Your task to perform on an android device: open app "Life360: Find Family & Friends" (install if not already installed) Image 0: 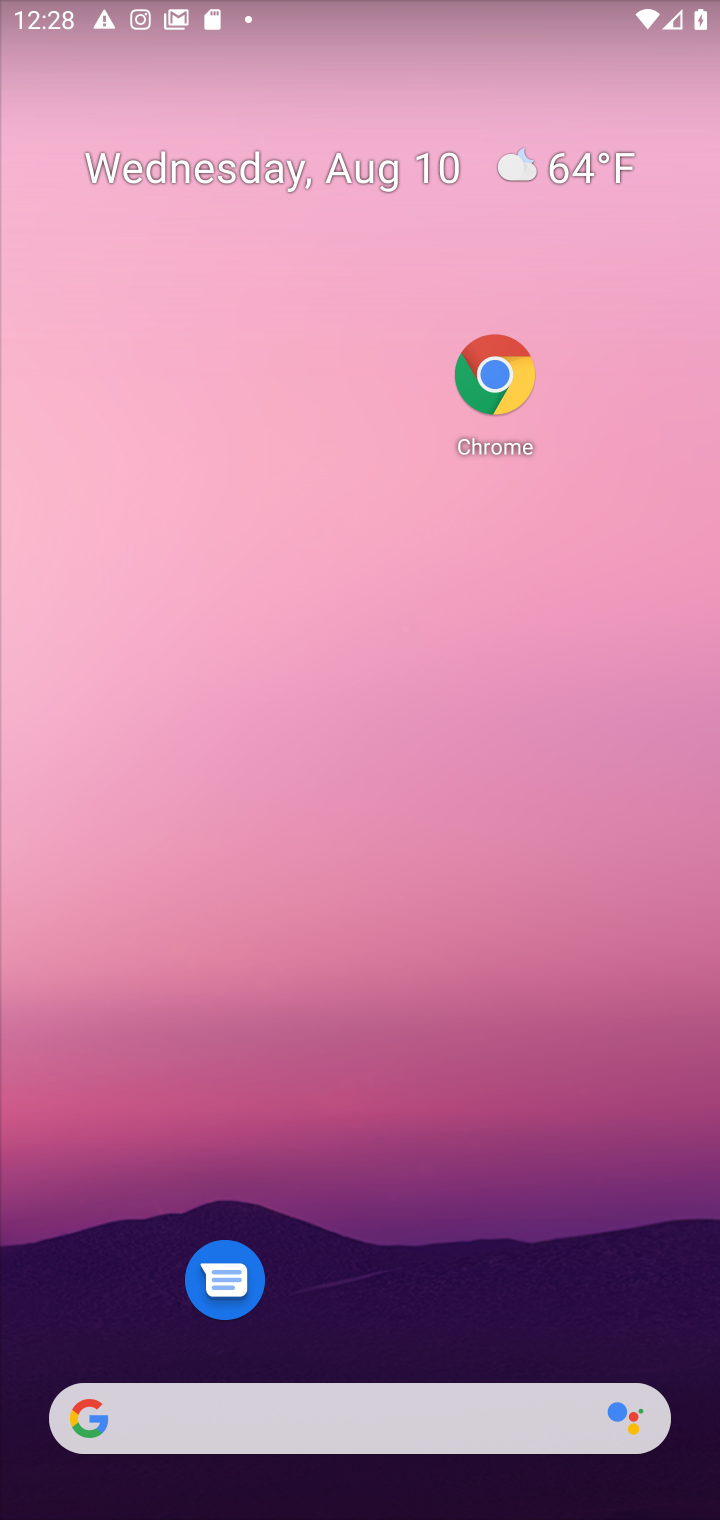
Step 0: drag from (451, 1384) to (354, 88)
Your task to perform on an android device: open app "Life360: Find Family & Friends" (install if not already installed) Image 1: 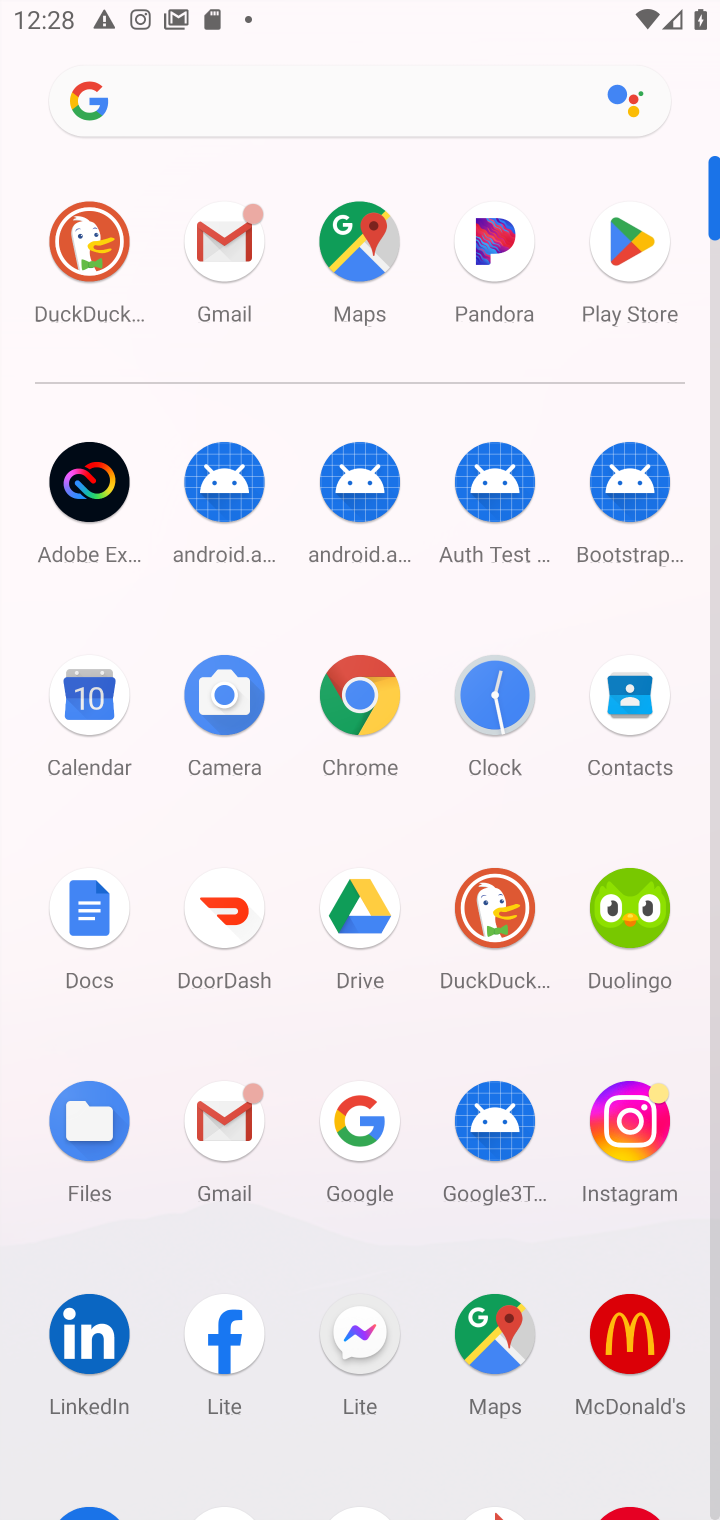
Step 1: click (641, 270)
Your task to perform on an android device: open app "Life360: Find Family & Friends" (install if not already installed) Image 2: 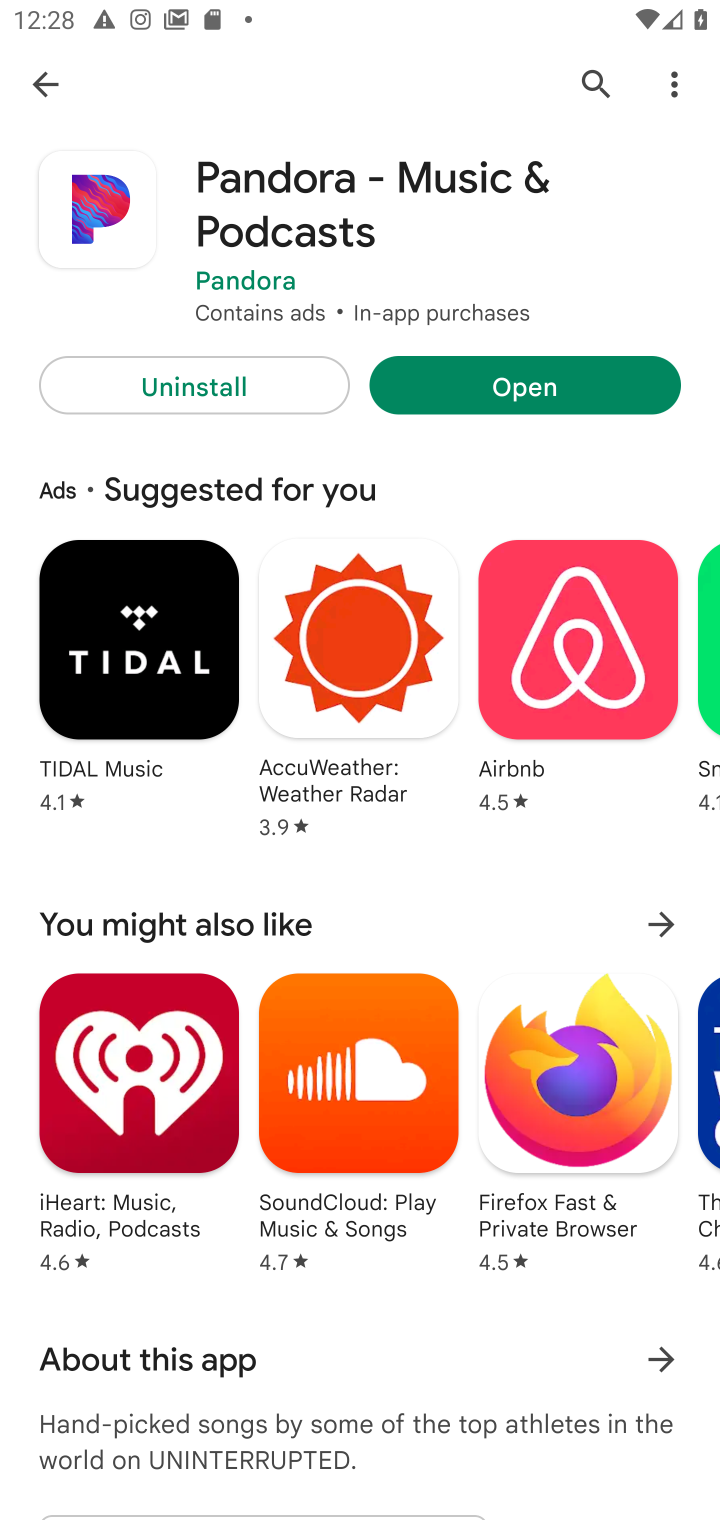
Step 2: click (123, 93)
Your task to perform on an android device: open app "Life360: Find Family & Friends" (install if not already installed) Image 3: 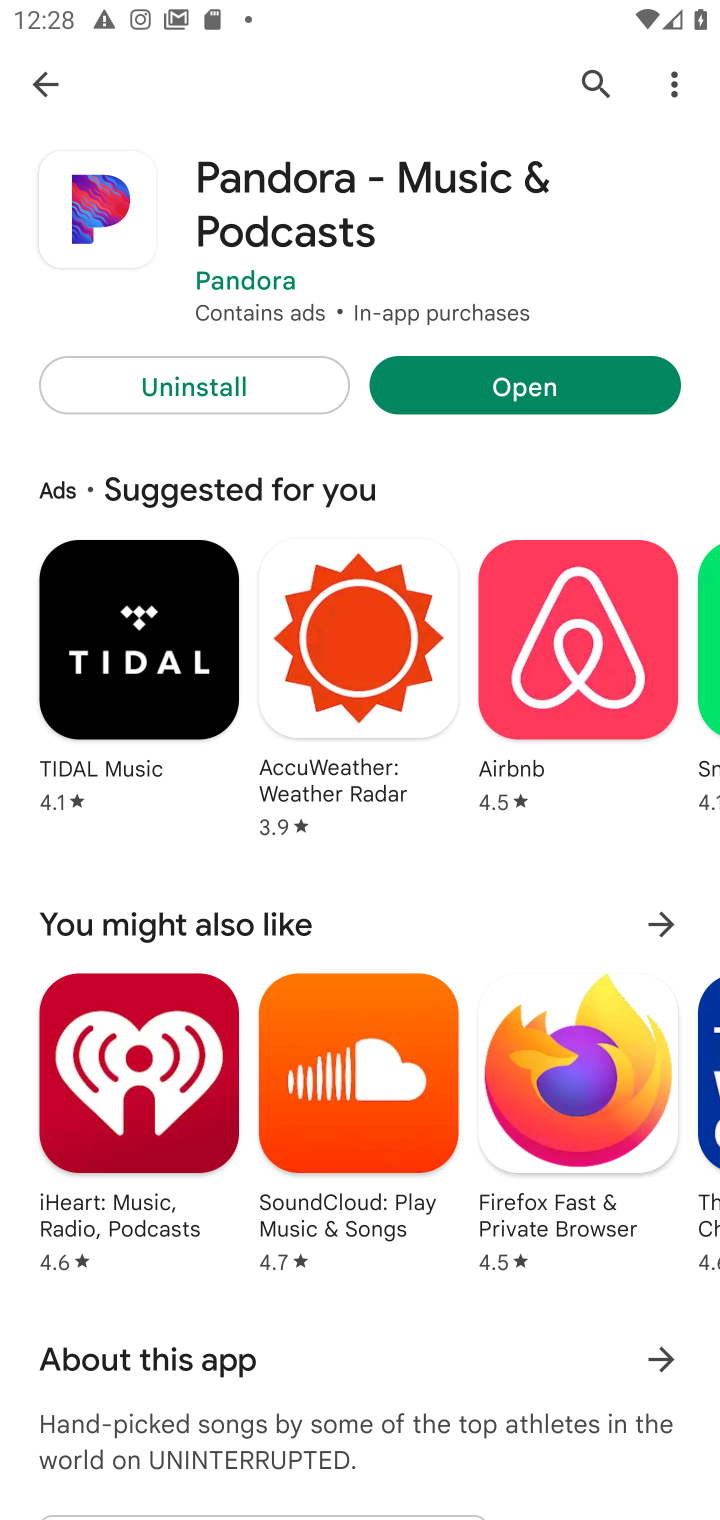
Step 3: click (41, 65)
Your task to perform on an android device: open app "Life360: Find Family & Friends" (install if not already installed) Image 4: 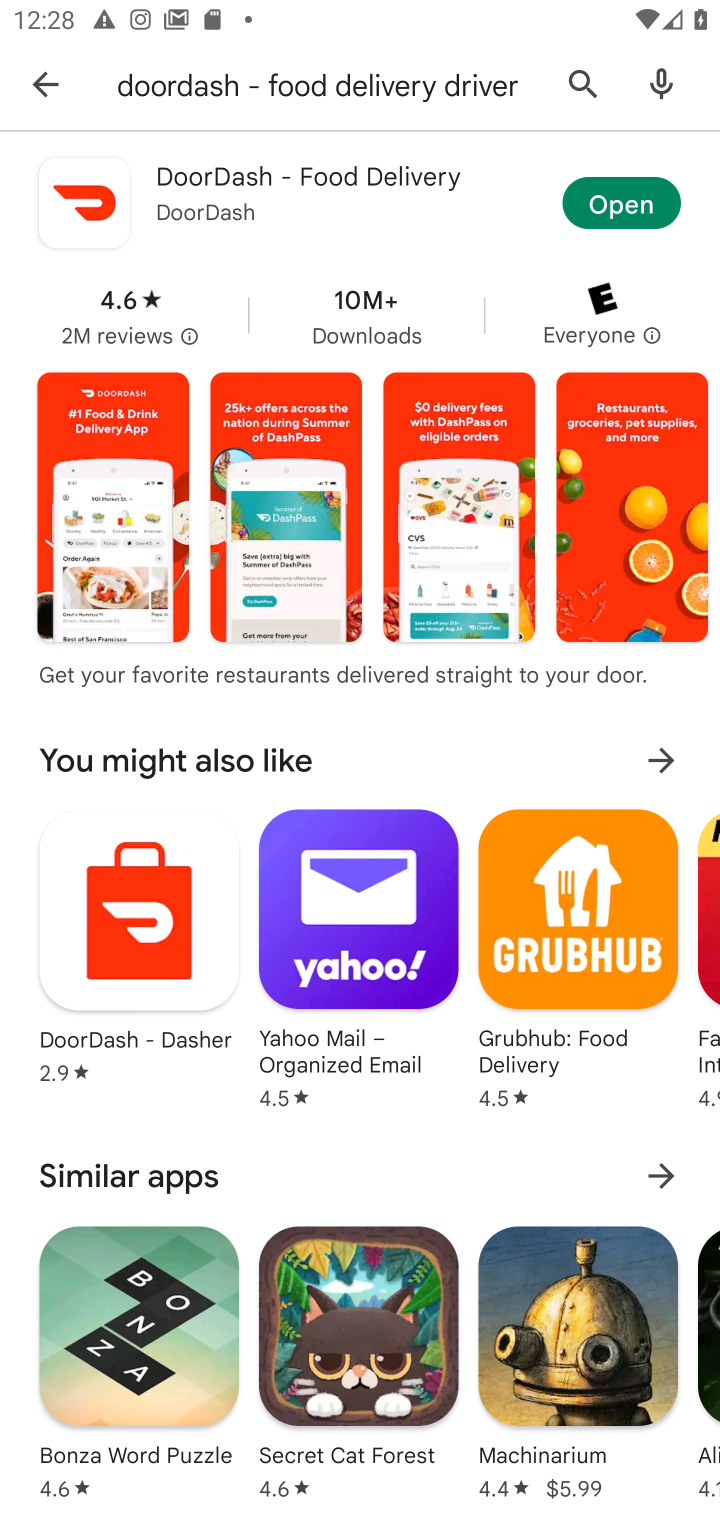
Step 4: click (34, 61)
Your task to perform on an android device: open app "Life360: Find Family & Friends" (install if not already installed) Image 5: 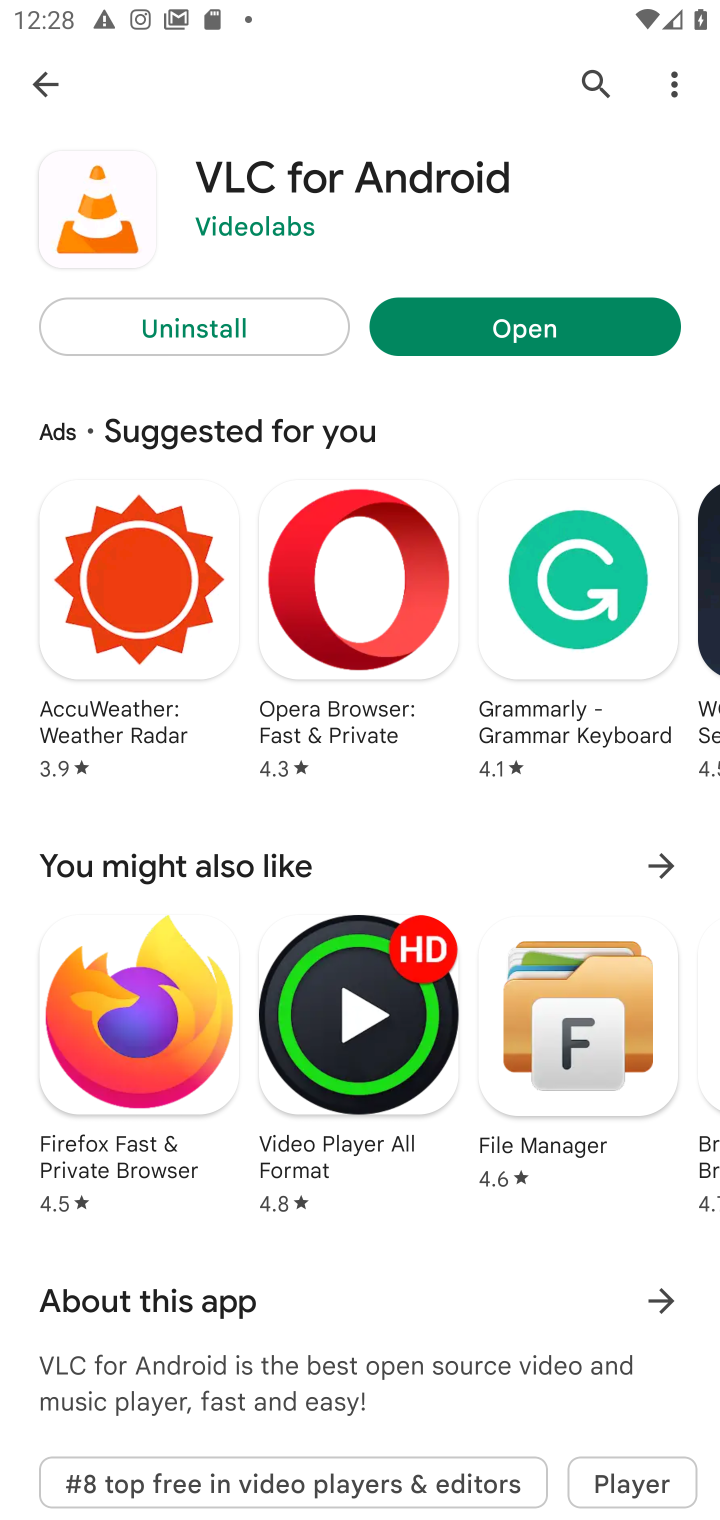
Step 5: click (608, 44)
Your task to perform on an android device: open app "Life360: Find Family & Friends" (install if not already installed) Image 6: 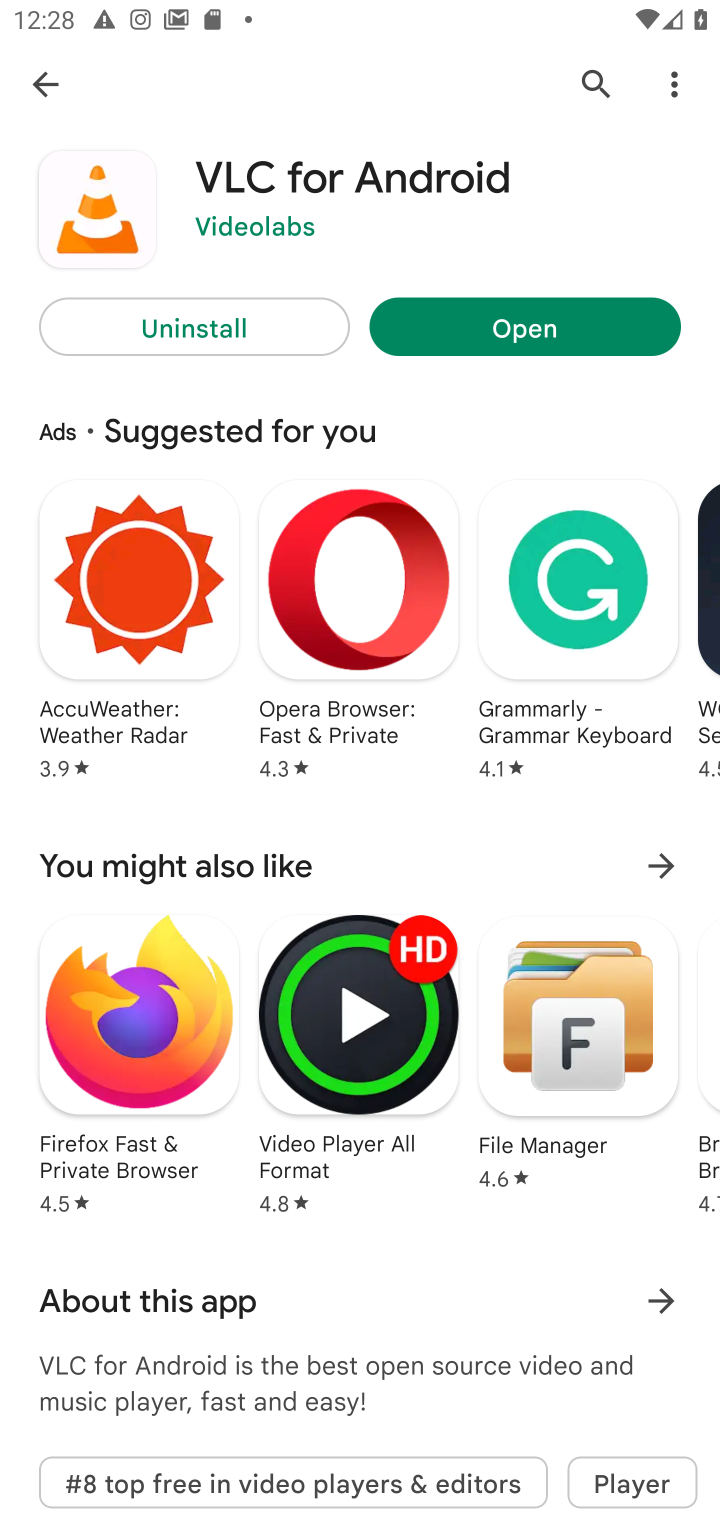
Step 6: click (578, 72)
Your task to perform on an android device: open app "Life360: Find Family & Friends" (install if not already installed) Image 7: 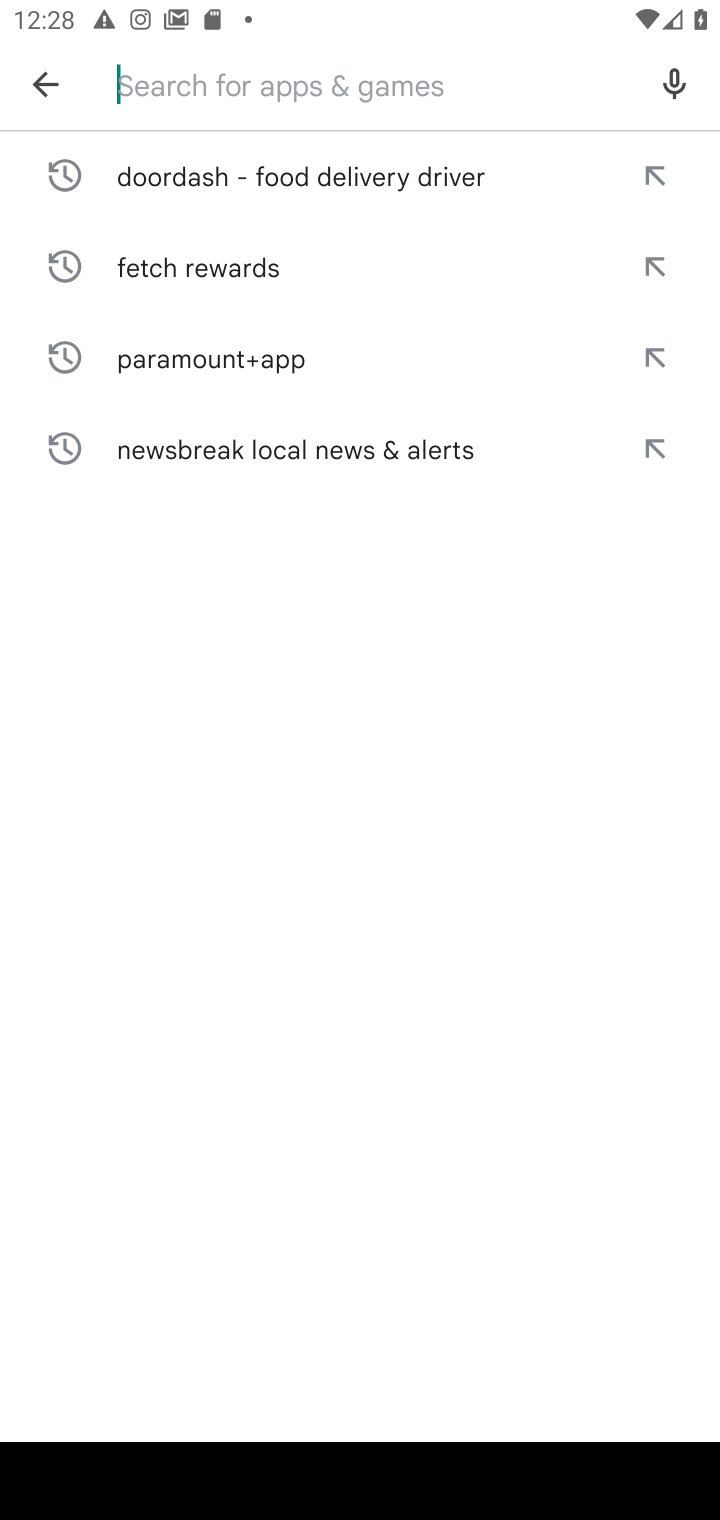
Step 7: type "Life360"
Your task to perform on an android device: open app "Life360: Find Family & Friends" (install if not already installed) Image 8: 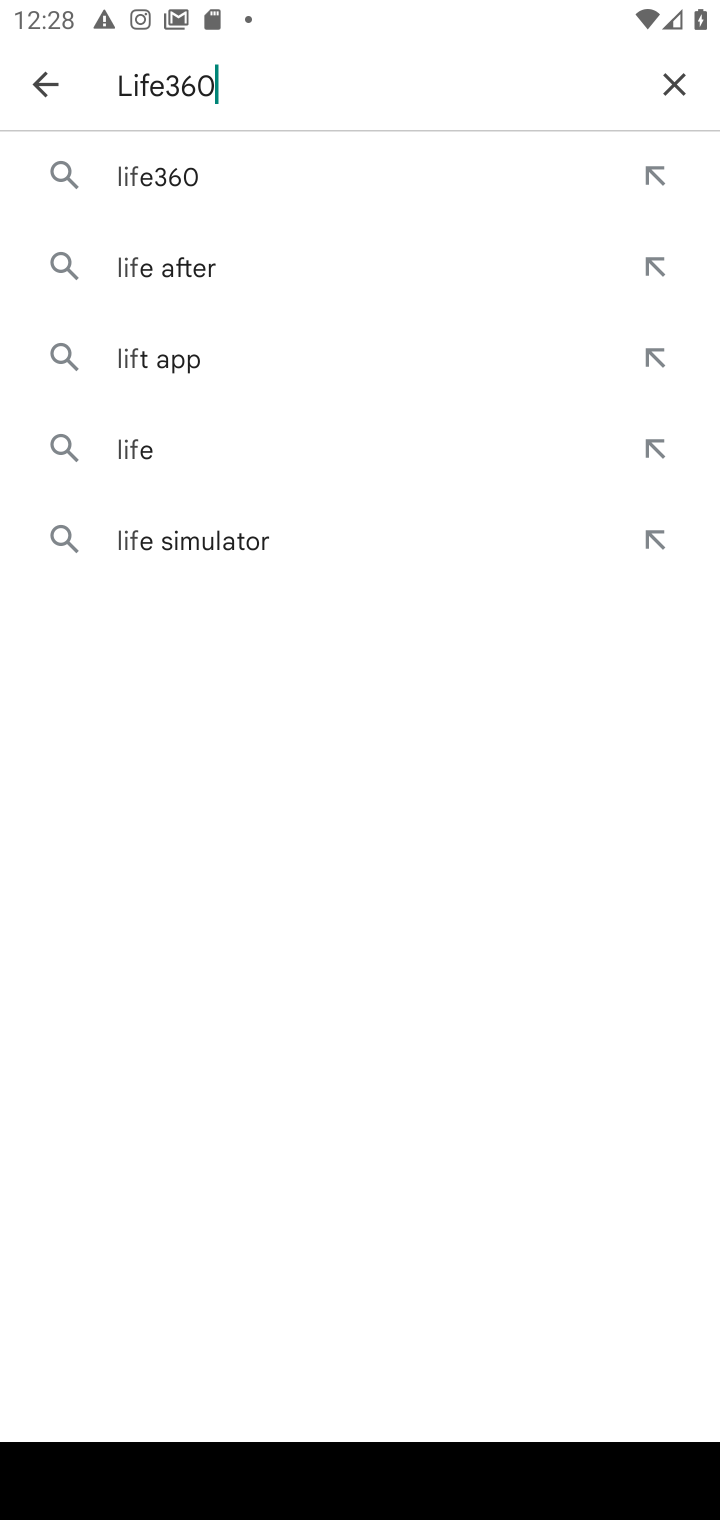
Step 8: type ""
Your task to perform on an android device: open app "Life360: Find Family & Friends" (install if not already installed) Image 9: 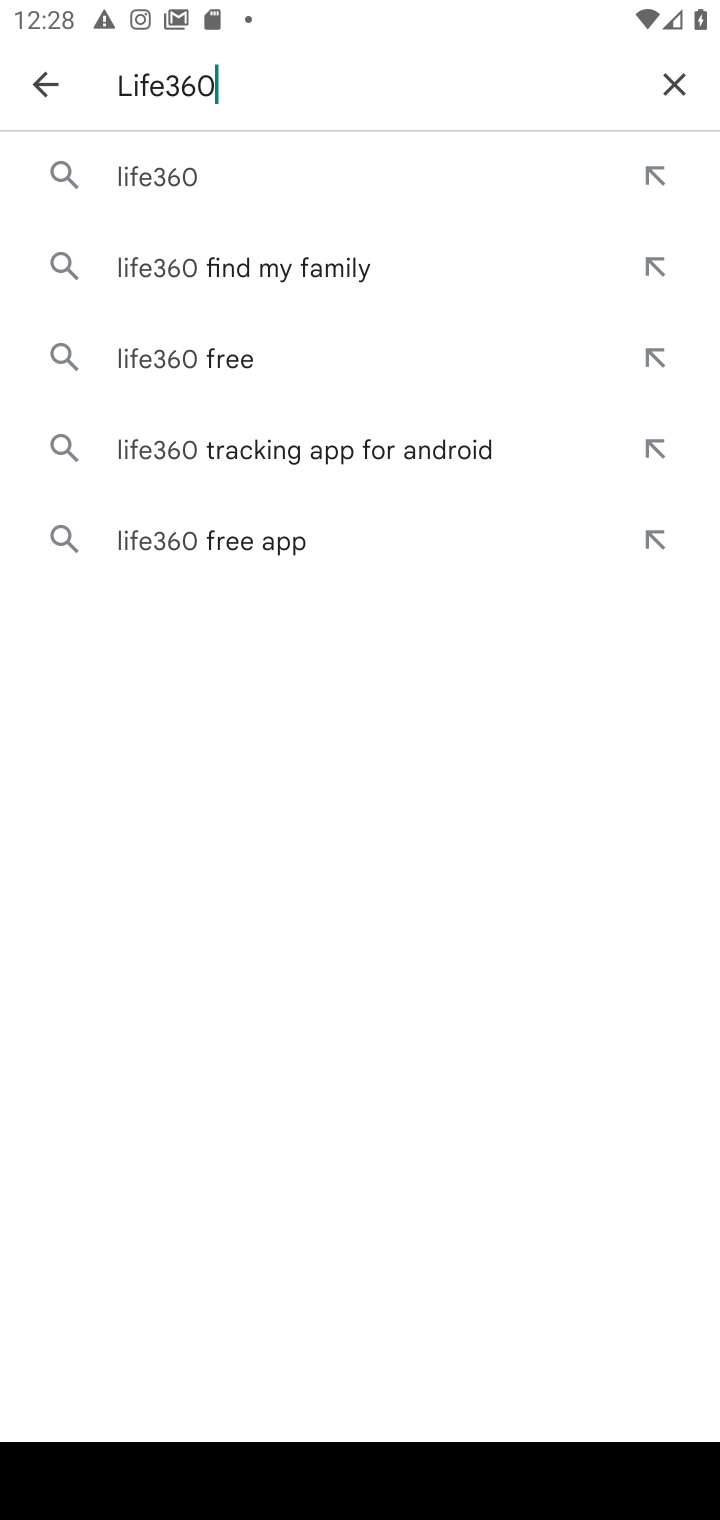
Step 9: click (129, 155)
Your task to perform on an android device: open app "Life360: Find Family & Friends" (install if not already installed) Image 10: 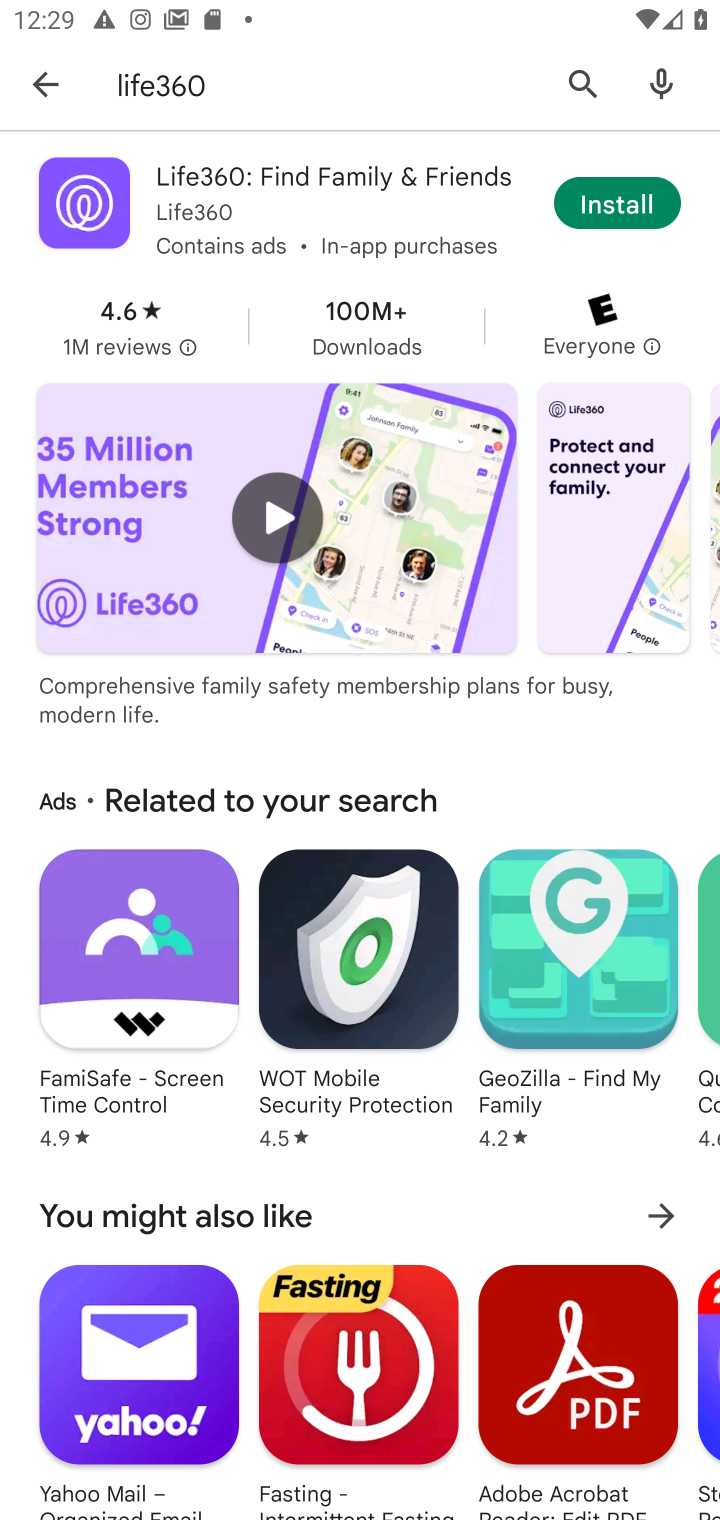
Step 10: task complete